Your task to perform on an android device: find which apps use the phone's location Image 0: 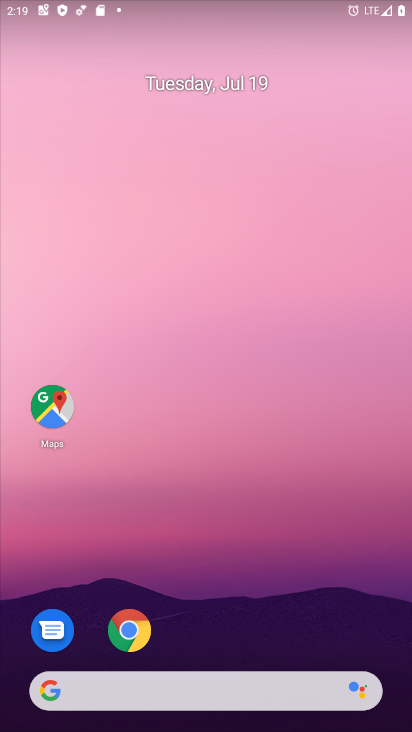
Step 0: press home button
Your task to perform on an android device: find which apps use the phone's location Image 1: 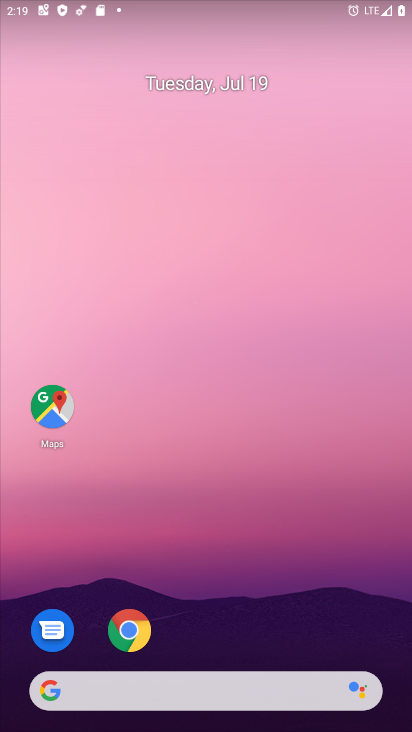
Step 1: drag from (224, 651) to (273, 84)
Your task to perform on an android device: find which apps use the phone's location Image 2: 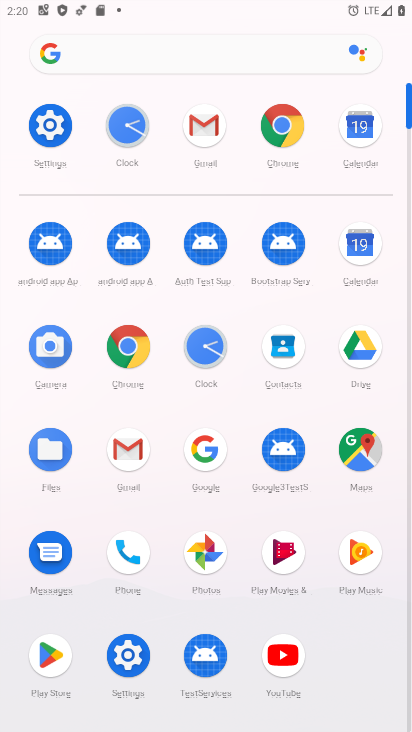
Step 2: click (48, 122)
Your task to perform on an android device: find which apps use the phone's location Image 3: 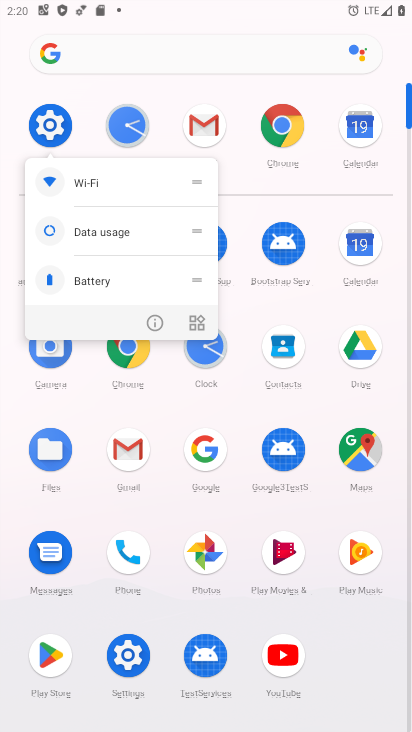
Step 3: click (45, 117)
Your task to perform on an android device: find which apps use the phone's location Image 4: 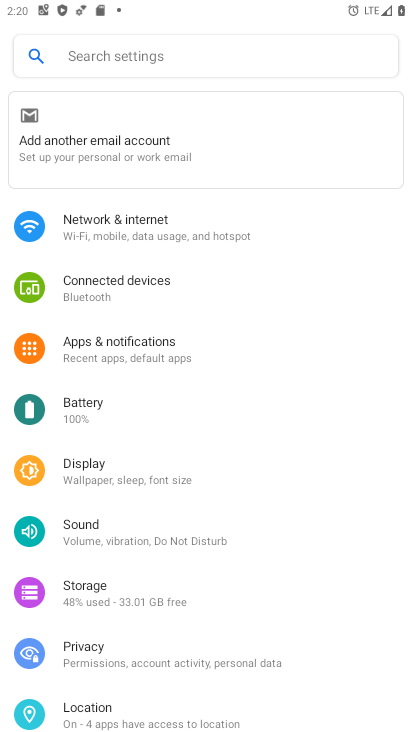
Step 4: click (135, 712)
Your task to perform on an android device: find which apps use the phone's location Image 5: 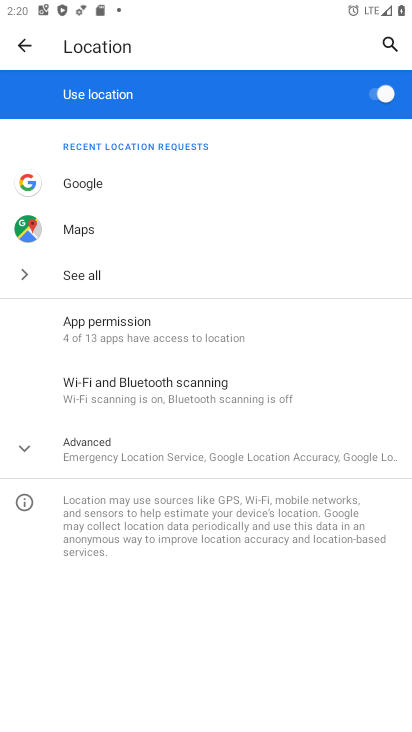
Step 5: click (161, 321)
Your task to perform on an android device: find which apps use the phone's location Image 6: 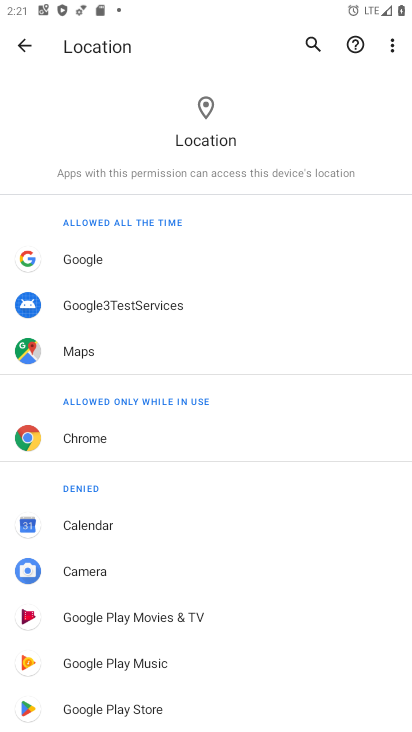
Step 6: task complete